Your task to perform on an android device: turn on location history Image 0: 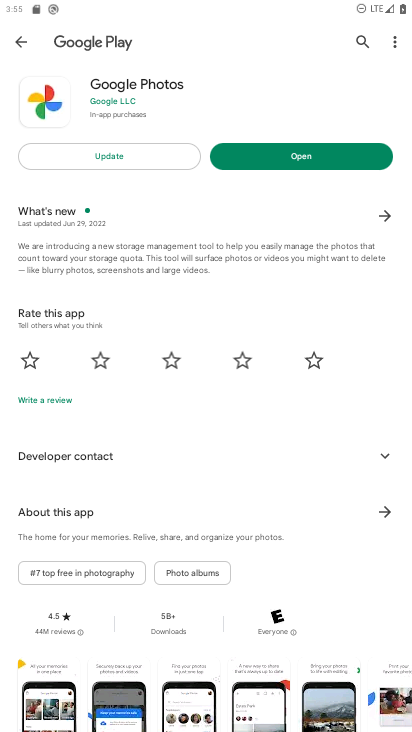
Step 0: press home button
Your task to perform on an android device: turn on location history Image 1: 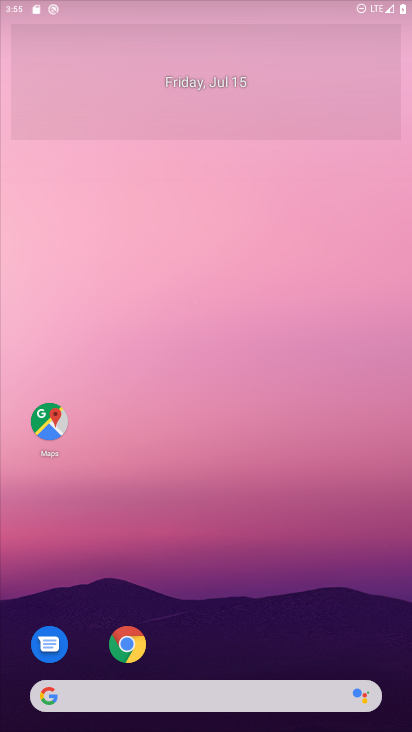
Step 1: drag from (17, 518) to (209, 111)
Your task to perform on an android device: turn on location history Image 2: 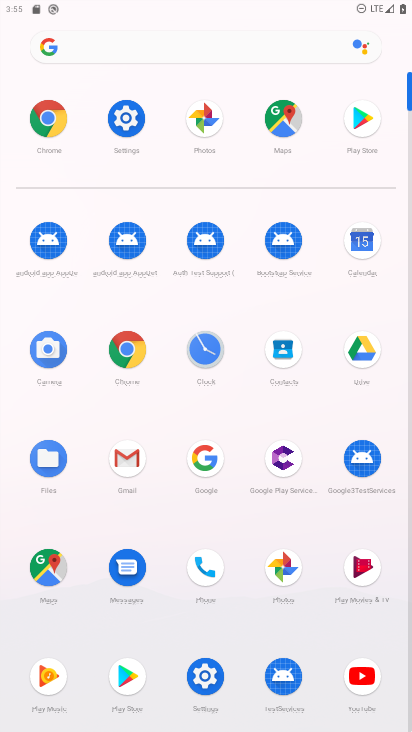
Step 2: click (135, 128)
Your task to perform on an android device: turn on location history Image 3: 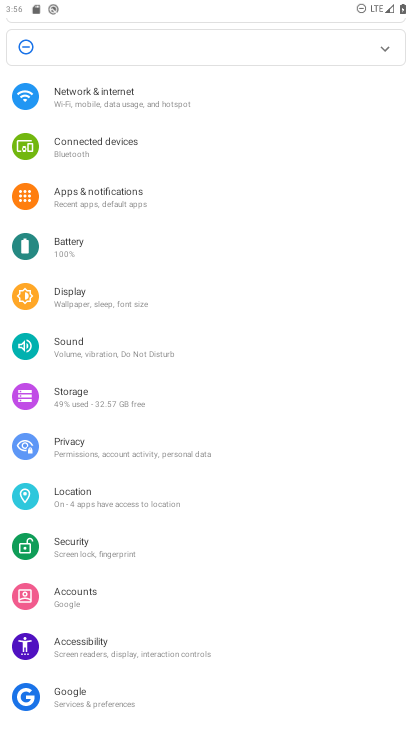
Step 3: click (124, 494)
Your task to perform on an android device: turn on location history Image 4: 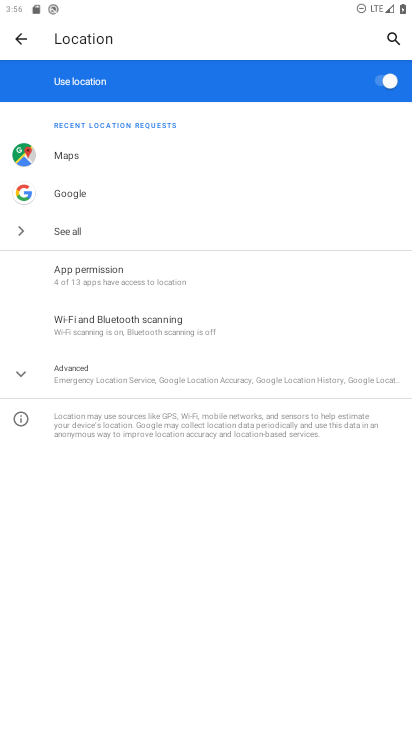
Step 4: click (160, 366)
Your task to perform on an android device: turn on location history Image 5: 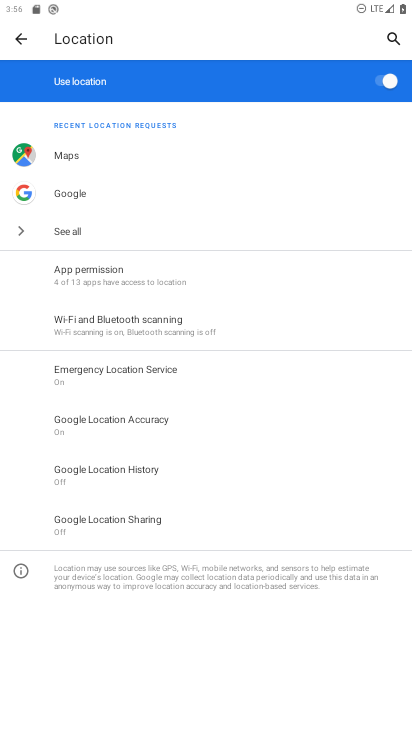
Step 5: click (109, 477)
Your task to perform on an android device: turn on location history Image 6: 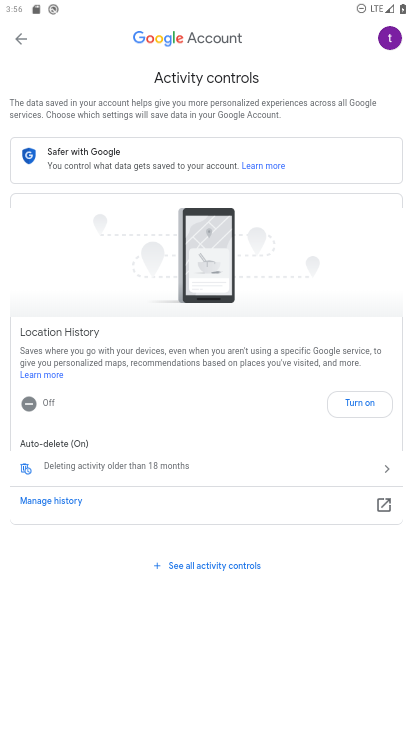
Step 6: click (143, 463)
Your task to perform on an android device: turn on location history Image 7: 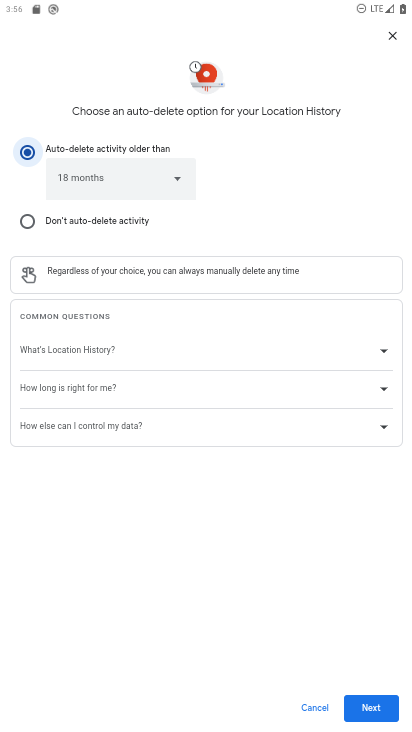
Step 7: click (355, 707)
Your task to perform on an android device: turn on location history Image 8: 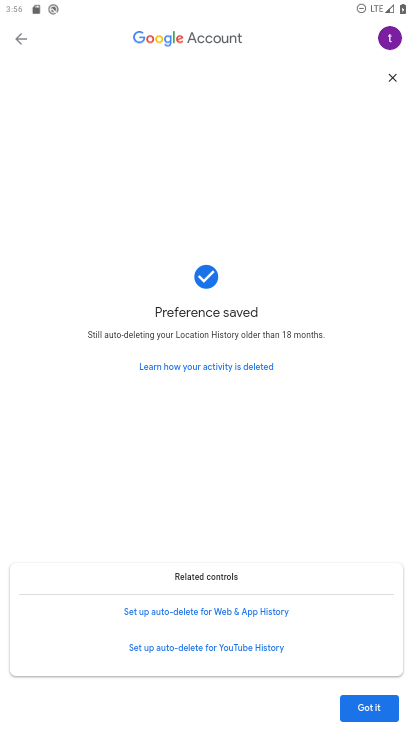
Step 8: click (361, 702)
Your task to perform on an android device: turn on location history Image 9: 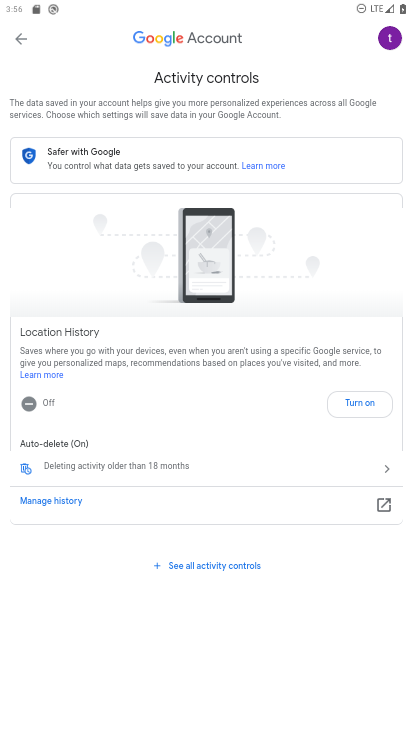
Step 9: task complete